Your task to perform on an android device: turn notification dots off Image 0: 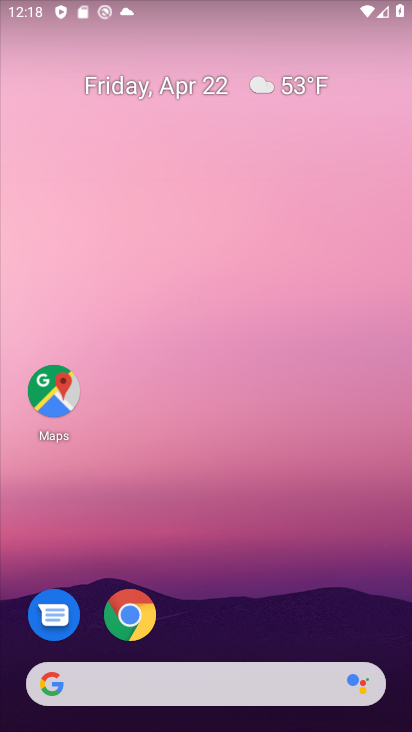
Step 0: drag from (355, 638) to (367, 75)
Your task to perform on an android device: turn notification dots off Image 1: 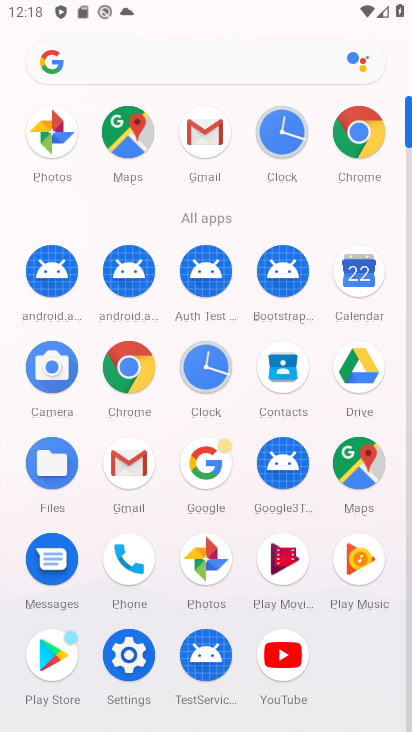
Step 1: click (125, 654)
Your task to perform on an android device: turn notification dots off Image 2: 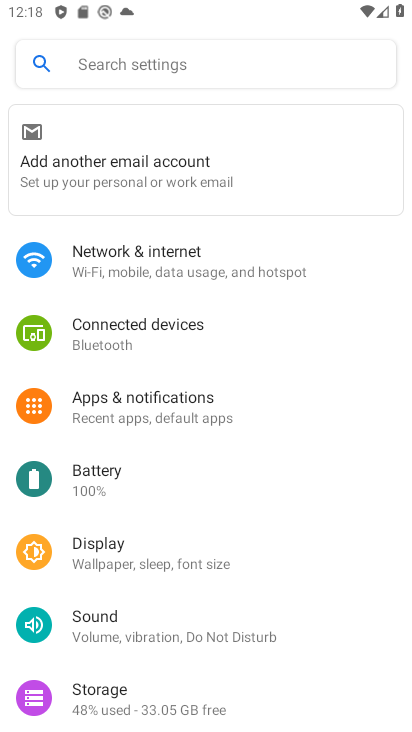
Step 2: click (139, 422)
Your task to perform on an android device: turn notification dots off Image 3: 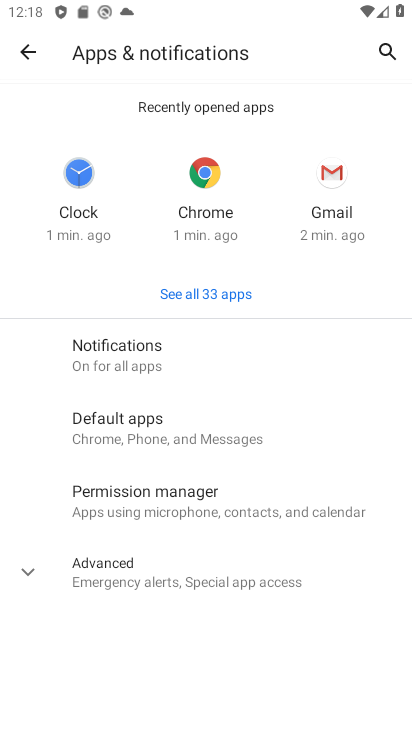
Step 3: click (130, 344)
Your task to perform on an android device: turn notification dots off Image 4: 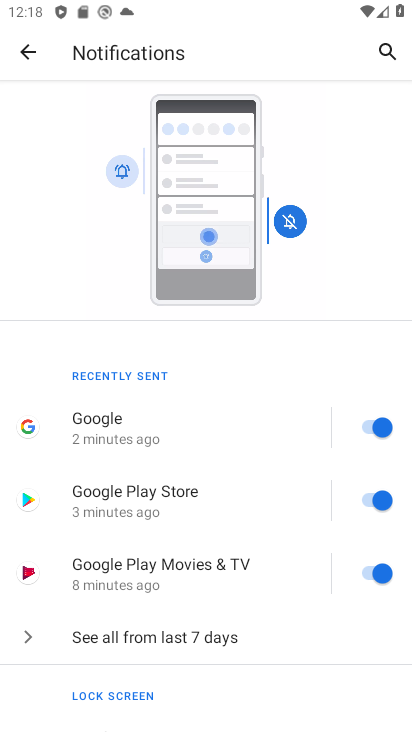
Step 4: drag from (238, 591) to (206, 169)
Your task to perform on an android device: turn notification dots off Image 5: 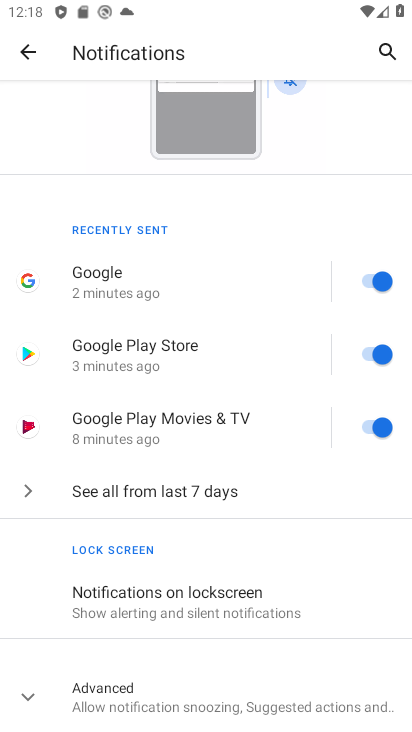
Step 5: drag from (175, 597) to (155, 295)
Your task to perform on an android device: turn notification dots off Image 6: 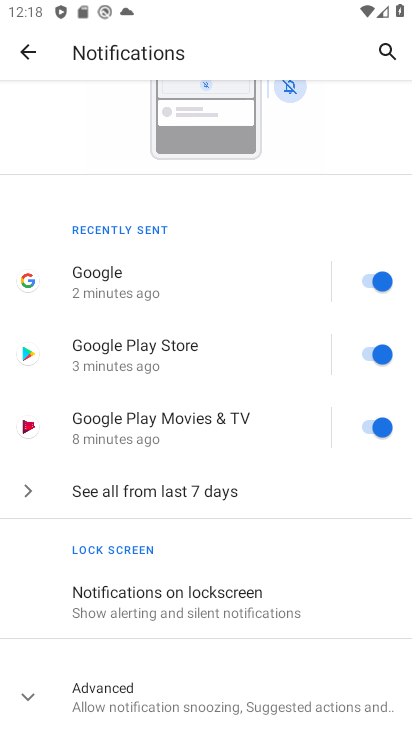
Step 6: click (31, 699)
Your task to perform on an android device: turn notification dots off Image 7: 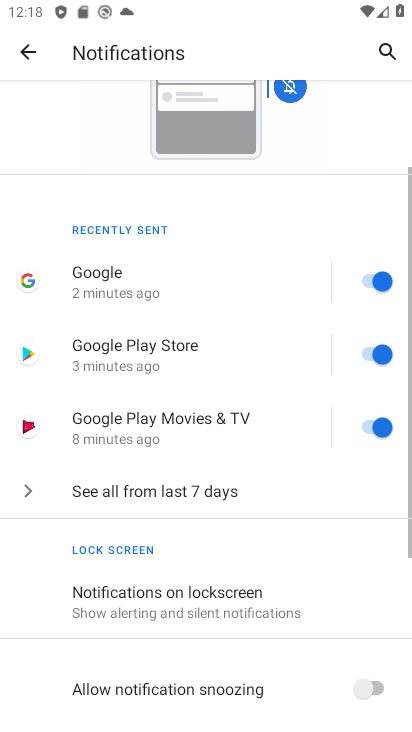
Step 7: drag from (172, 694) to (147, 293)
Your task to perform on an android device: turn notification dots off Image 8: 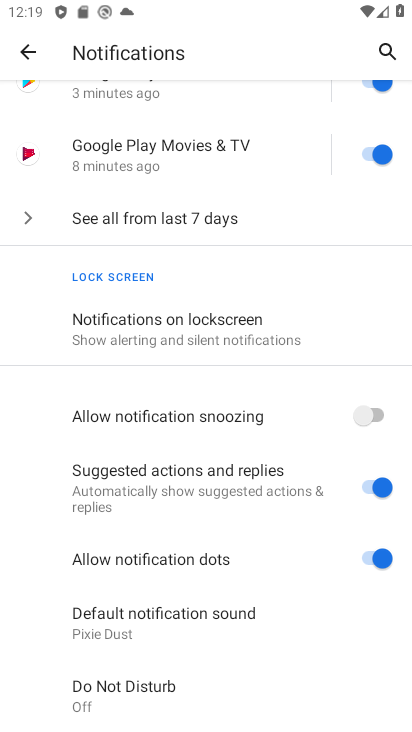
Step 8: click (371, 558)
Your task to perform on an android device: turn notification dots off Image 9: 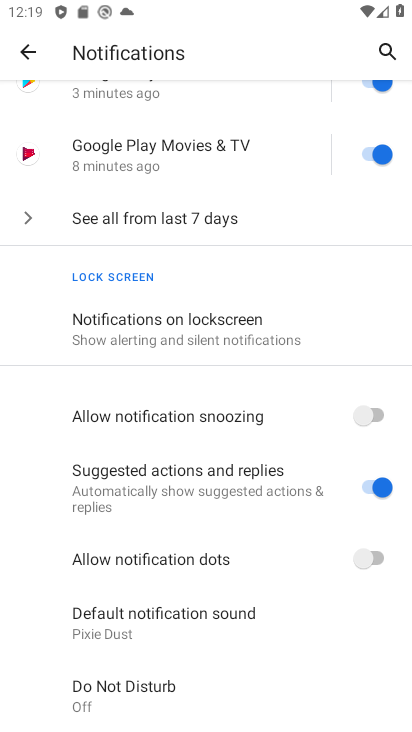
Step 9: task complete